Your task to perform on an android device: install app "Paramount+ | Peak Streaming" Image 0: 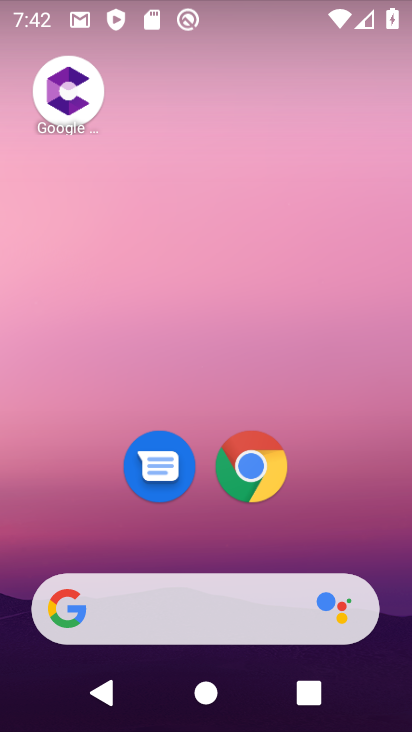
Step 0: drag from (240, 555) to (214, 0)
Your task to perform on an android device: install app "Paramount+ | Peak Streaming" Image 1: 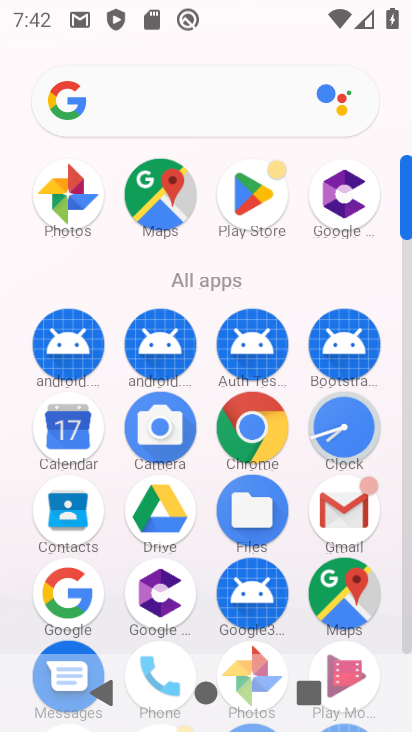
Step 1: click (268, 193)
Your task to perform on an android device: install app "Paramount+ | Peak Streaming" Image 2: 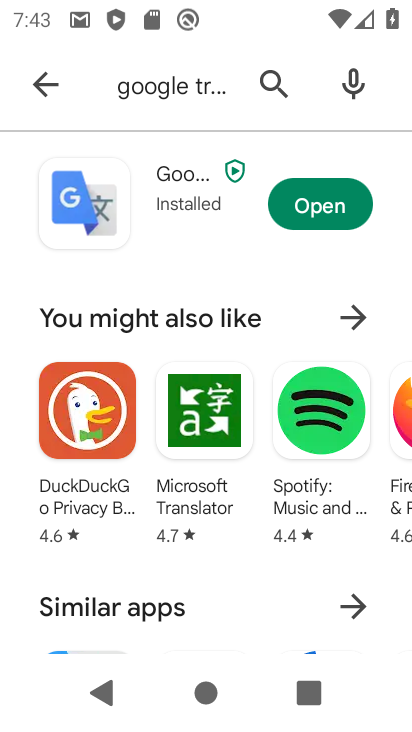
Step 2: click (184, 85)
Your task to perform on an android device: install app "Paramount+ | Peak Streaming" Image 3: 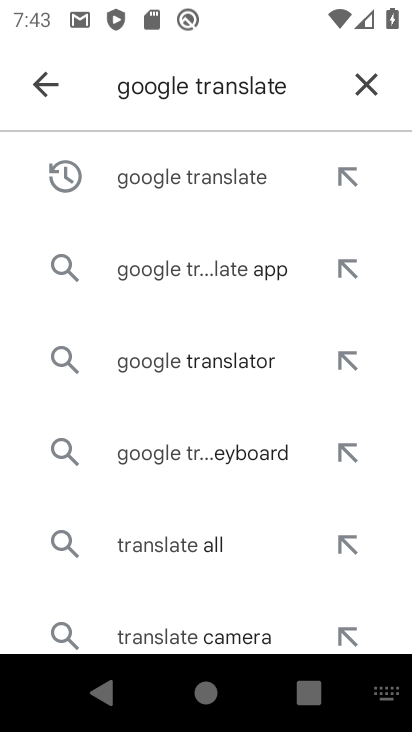
Step 3: click (359, 91)
Your task to perform on an android device: install app "Paramount+ | Peak Streaming" Image 4: 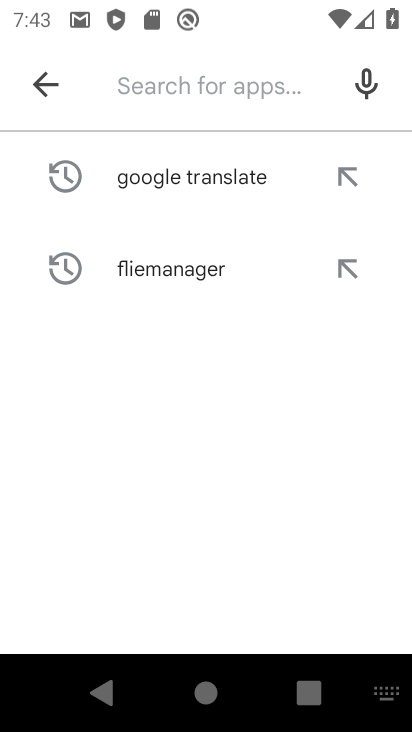
Step 4: type "paramount +"
Your task to perform on an android device: install app "Paramount+ | Peak Streaming" Image 5: 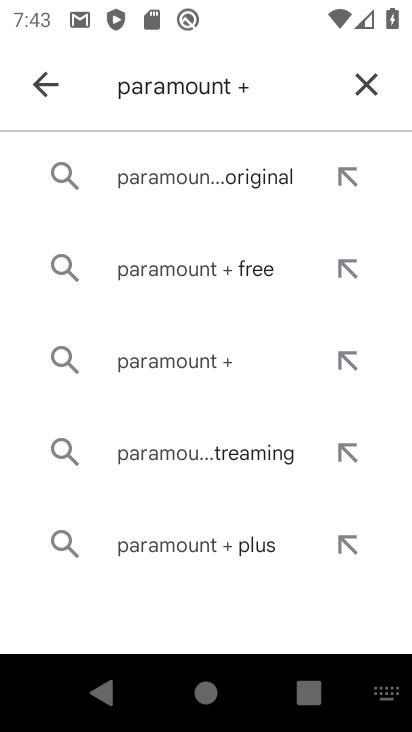
Step 5: click (167, 189)
Your task to perform on an android device: install app "Paramount+ | Peak Streaming" Image 6: 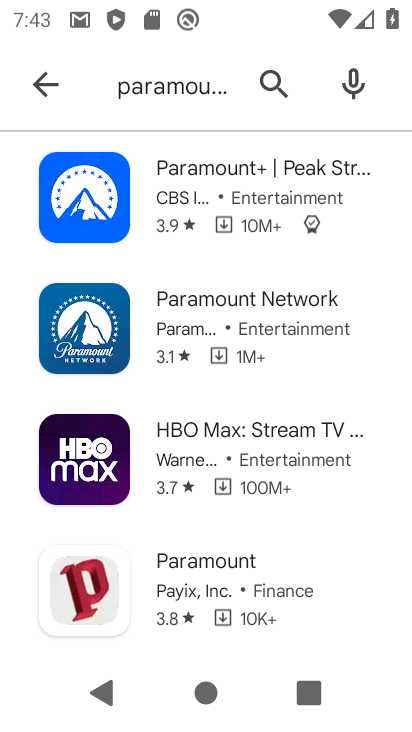
Step 6: click (176, 185)
Your task to perform on an android device: install app "Paramount+ | Peak Streaming" Image 7: 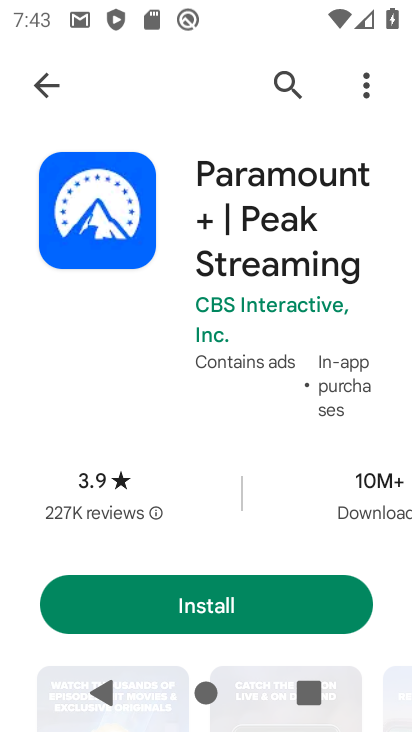
Step 7: click (223, 605)
Your task to perform on an android device: install app "Paramount+ | Peak Streaming" Image 8: 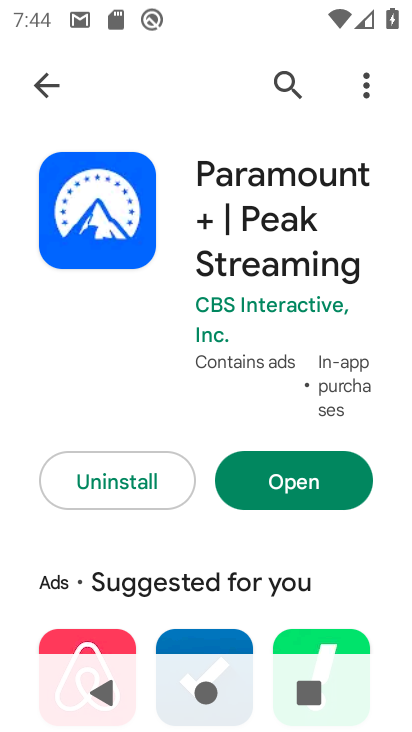
Step 8: task complete